Your task to perform on an android device: Toggle the flashlight Image 0: 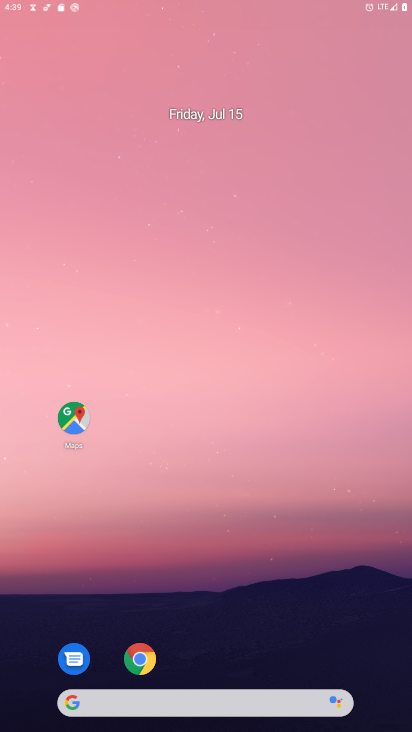
Step 0: drag from (256, 0) to (286, 673)
Your task to perform on an android device: Toggle the flashlight Image 1: 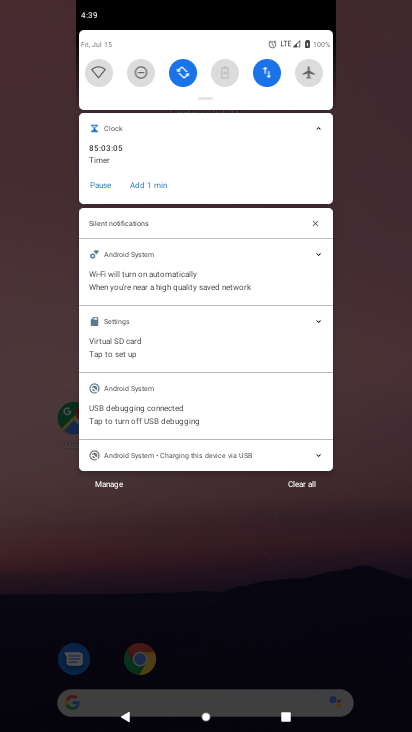
Step 1: task complete